Your task to perform on an android device: turn on javascript in the chrome app Image 0: 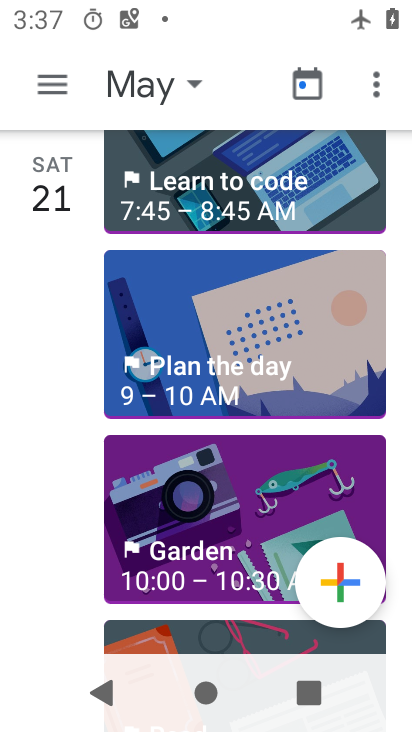
Step 0: drag from (209, 568) to (174, 173)
Your task to perform on an android device: turn on javascript in the chrome app Image 1: 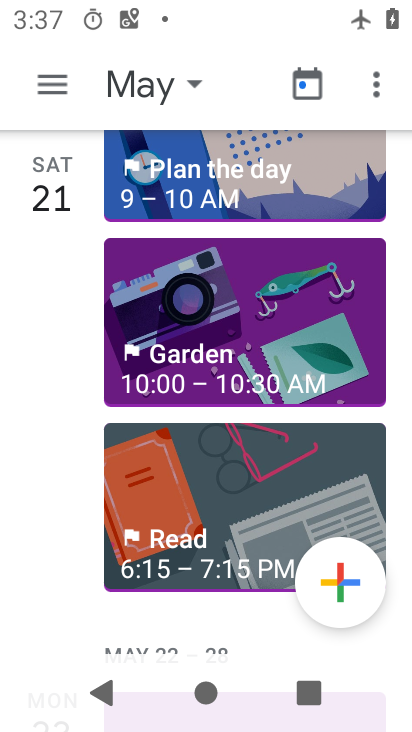
Step 1: press home button
Your task to perform on an android device: turn on javascript in the chrome app Image 2: 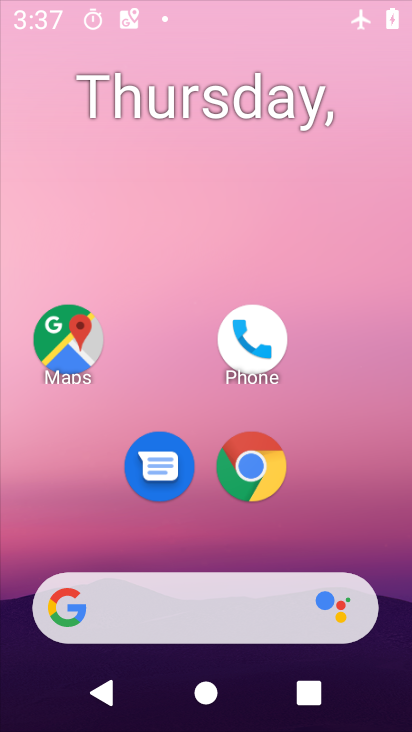
Step 2: drag from (200, 610) to (195, 123)
Your task to perform on an android device: turn on javascript in the chrome app Image 3: 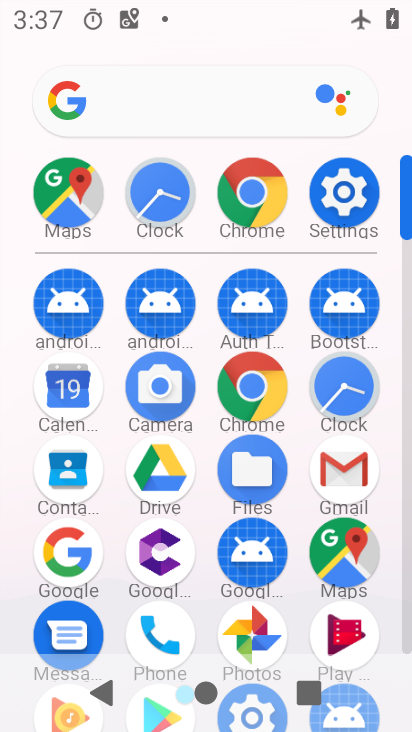
Step 3: click (249, 204)
Your task to perform on an android device: turn on javascript in the chrome app Image 4: 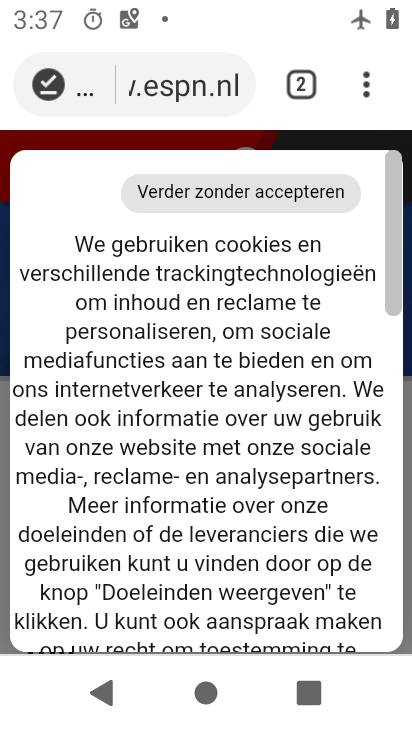
Step 4: click (372, 76)
Your task to perform on an android device: turn on javascript in the chrome app Image 5: 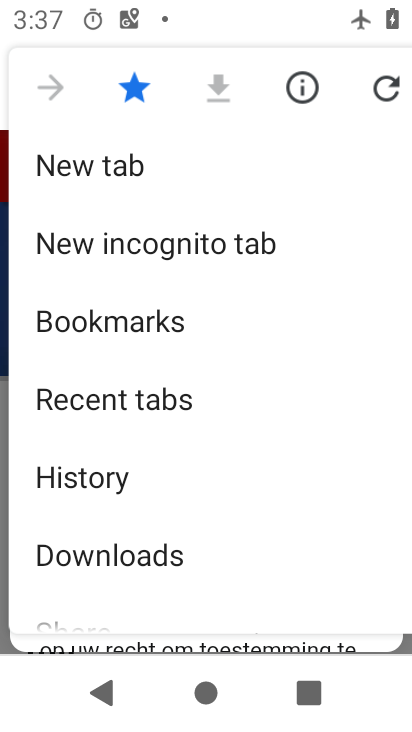
Step 5: drag from (135, 581) to (270, 142)
Your task to perform on an android device: turn on javascript in the chrome app Image 6: 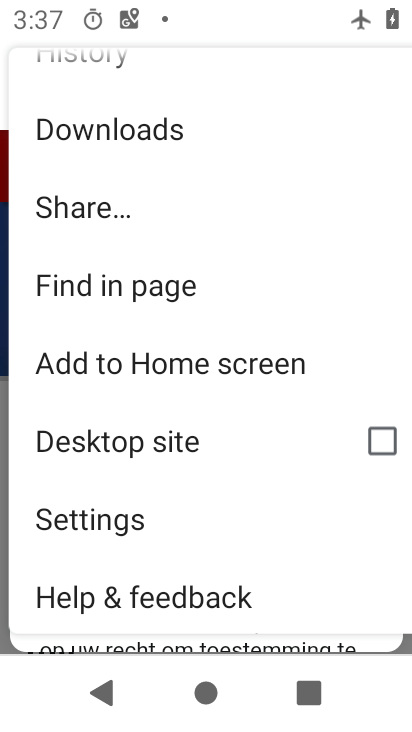
Step 6: click (123, 543)
Your task to perform on an android device: turn on javascript in the chrome app Image 7: 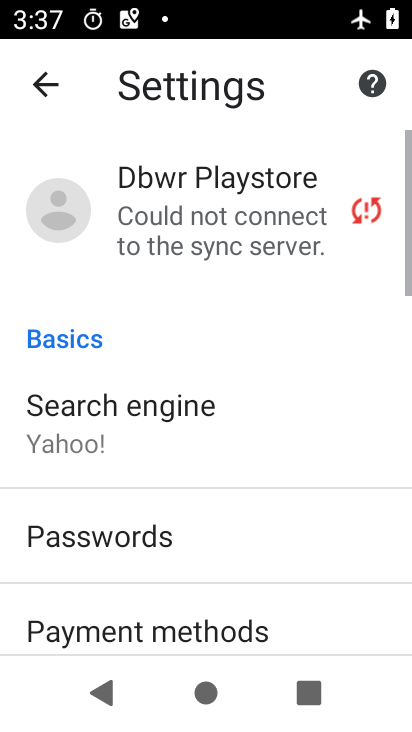
Step 7: drag from (137, 532) to (300, 98)
Your task to perform on an android device: turn on javascript in the chrome app Image 8: 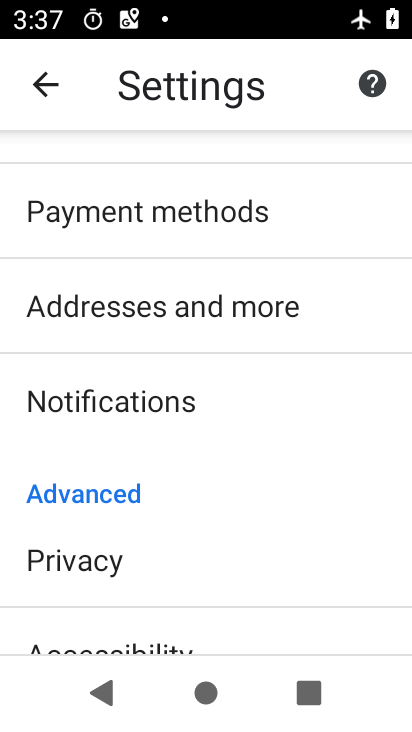
Step 8: drag from (147, 547) to (199, 124)
Your task to perform on an android device: turn on javascript in the chrome app Image 9: 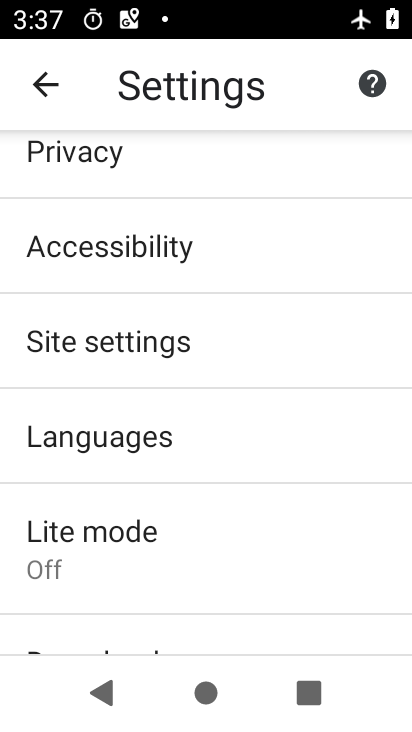
Step 9: drag from (116, 564) to (266, 41)
Your task to perform on an android device: turn on javascript in the chrome app Image 10: 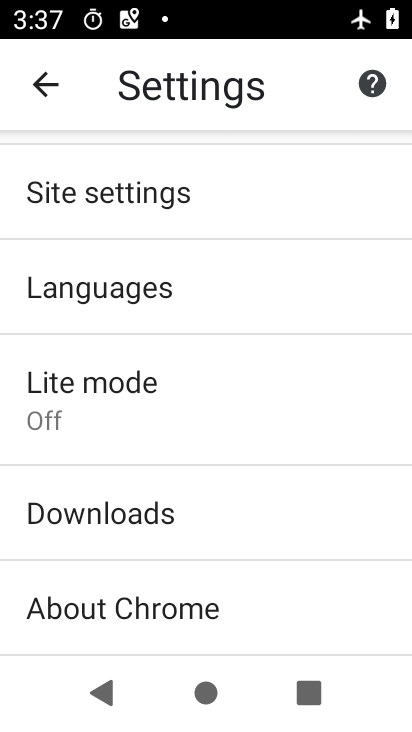
Step 10: click (155, 213)
Your task to perform on an android device: turn on javascript in the chrome app Image 11: 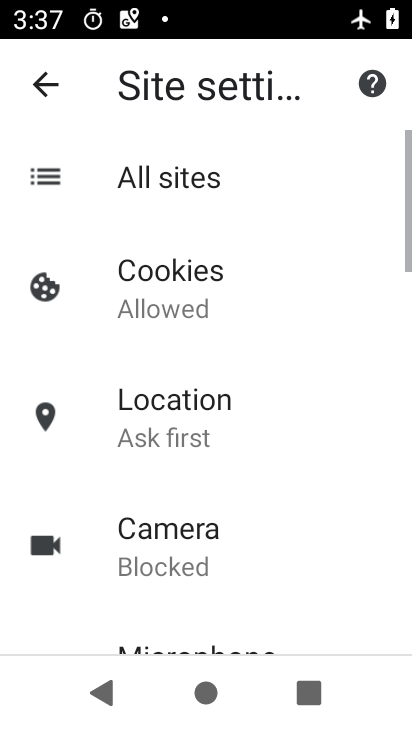
Step 11: drag from (208, 540) to (279, 94)
Your task to perform on an android device: turn on javascript in the chrome app Image 12: 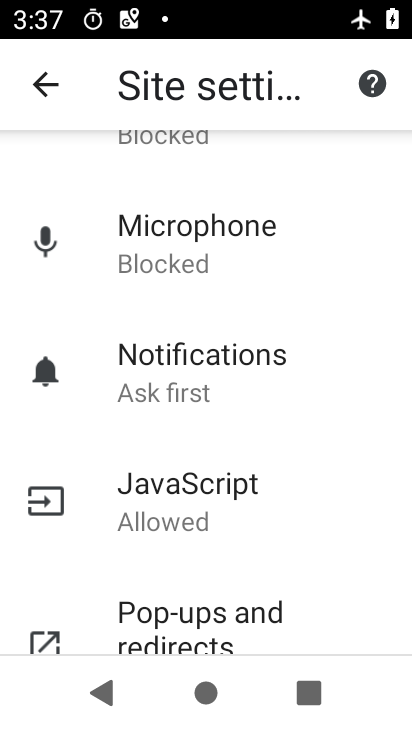
Step 12: click (149, 490)
Your task to perform on an android device: turn on javascript in the chrome app Image 13: 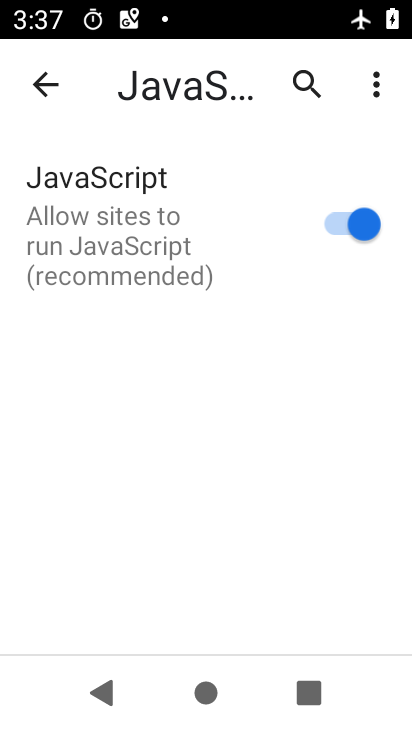
Step 13: task complete